Your task to perform on an android device: delete browsing data in the chrome app Image 0: 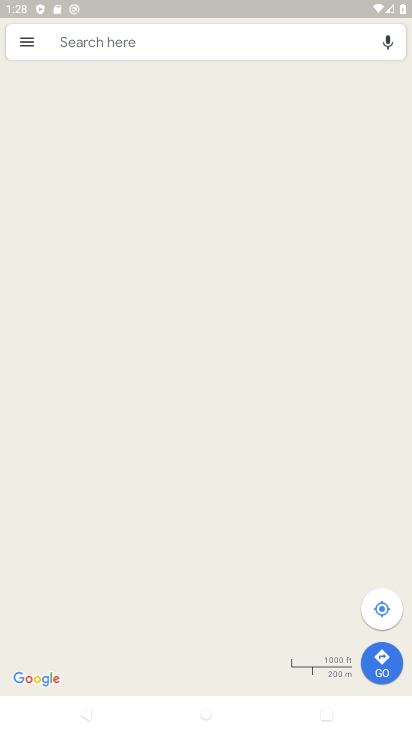
Step 0: press home button
Your task to perform on an android device: delete browsing data in the chrome app Image 1: 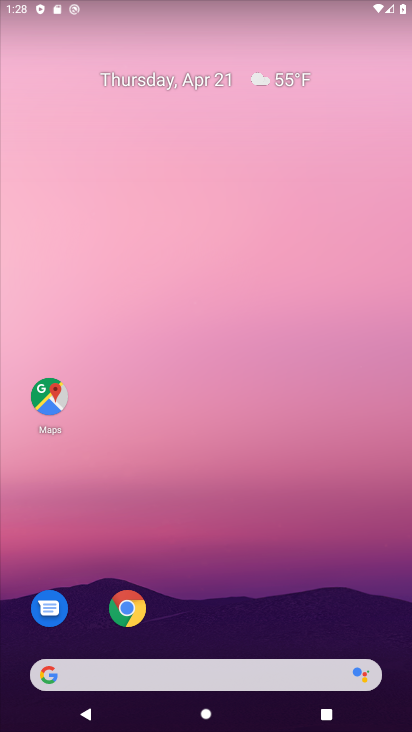
Step 1: click (141, 609)
Your task to perform on an android device: delete browsing data in the chrome app Image 2: 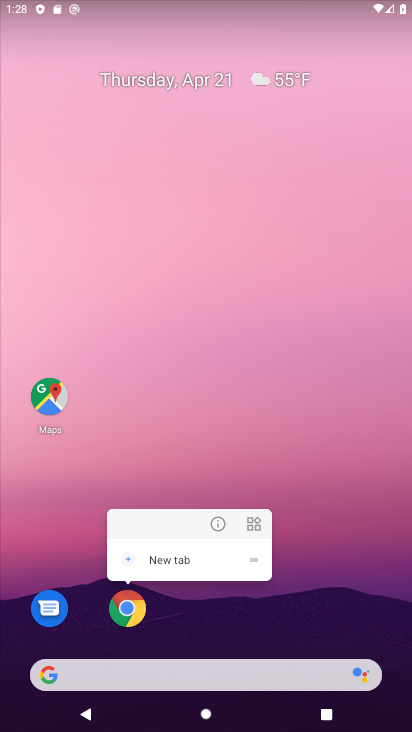
Step 2: click (131, 613)
Your task to perform on an android device: delete browsing data in the chrome app Image 3: 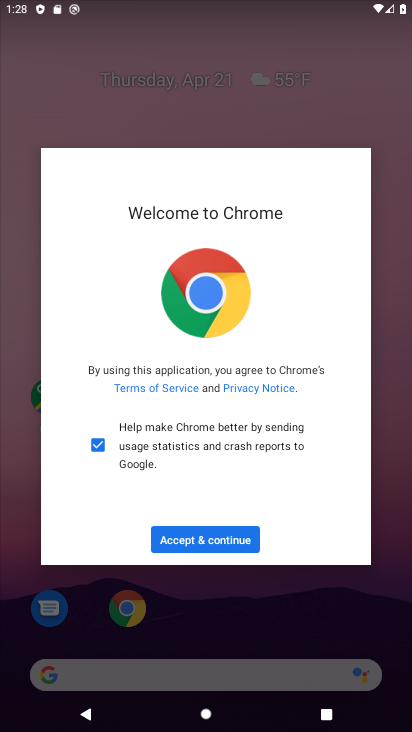
Step 3: click (203, 537)
Your task to perform on an android device: delete browsing data in the chrome app Image 4: 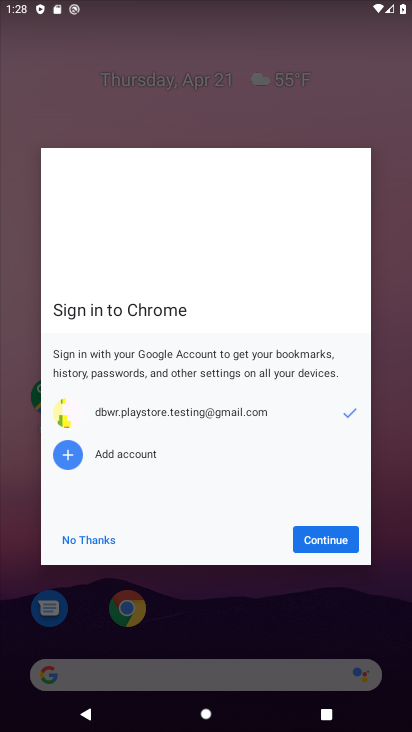
Step 4: click (310, 531)
Your task to perform on an android device: delete browsing data in the chrome app Image 5: 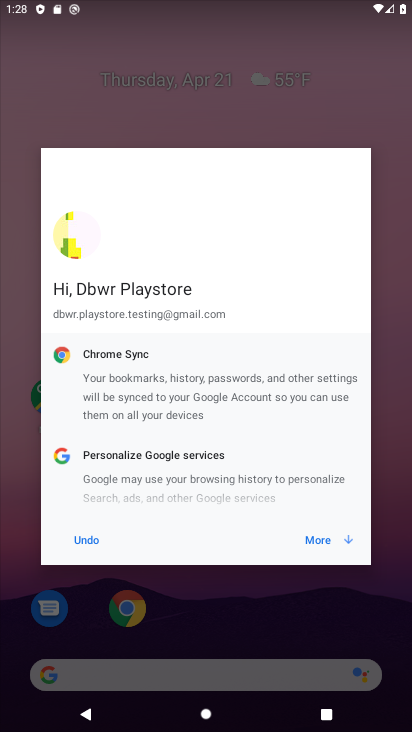
Step 5: click (318, 539)
Your task to perform on an android device: delete browsing data in the chrome app Image 6: 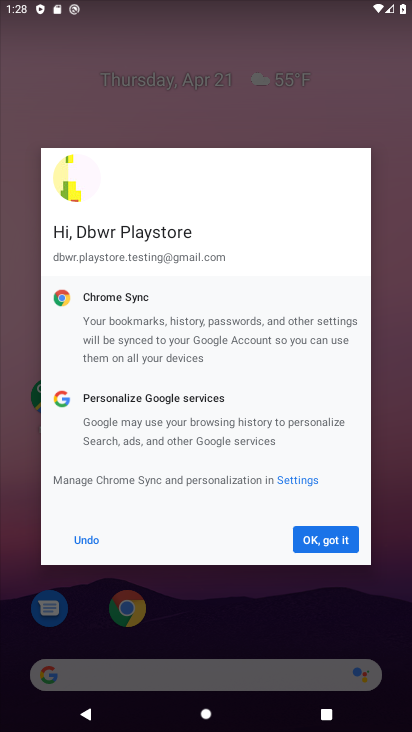
Step 6: click (318, 539)
Your task to perform on an android device: delete browsing data in the chrome app Image 7: 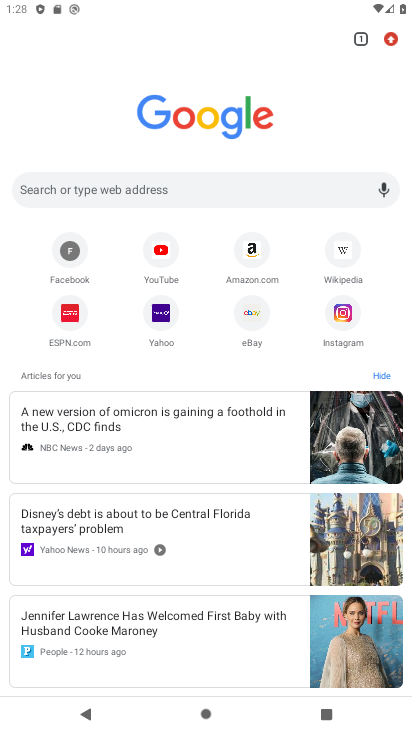
Step 7: task complete